Your task to perform on an android device: choose inbox layout in the gmail app Image 0: 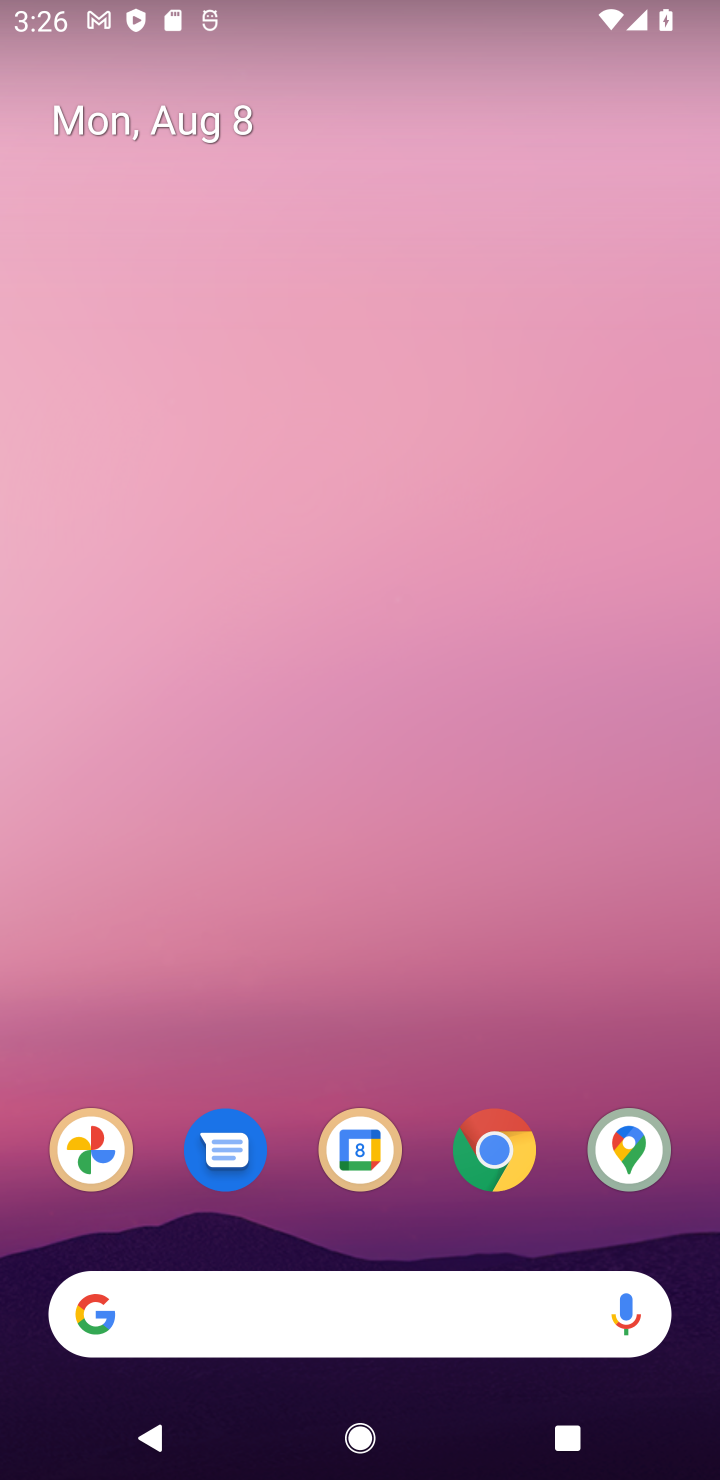
Step 0: click (431, 1237)
Your task to perform on an android device: choose inbox layout in the gmail app Image 1: 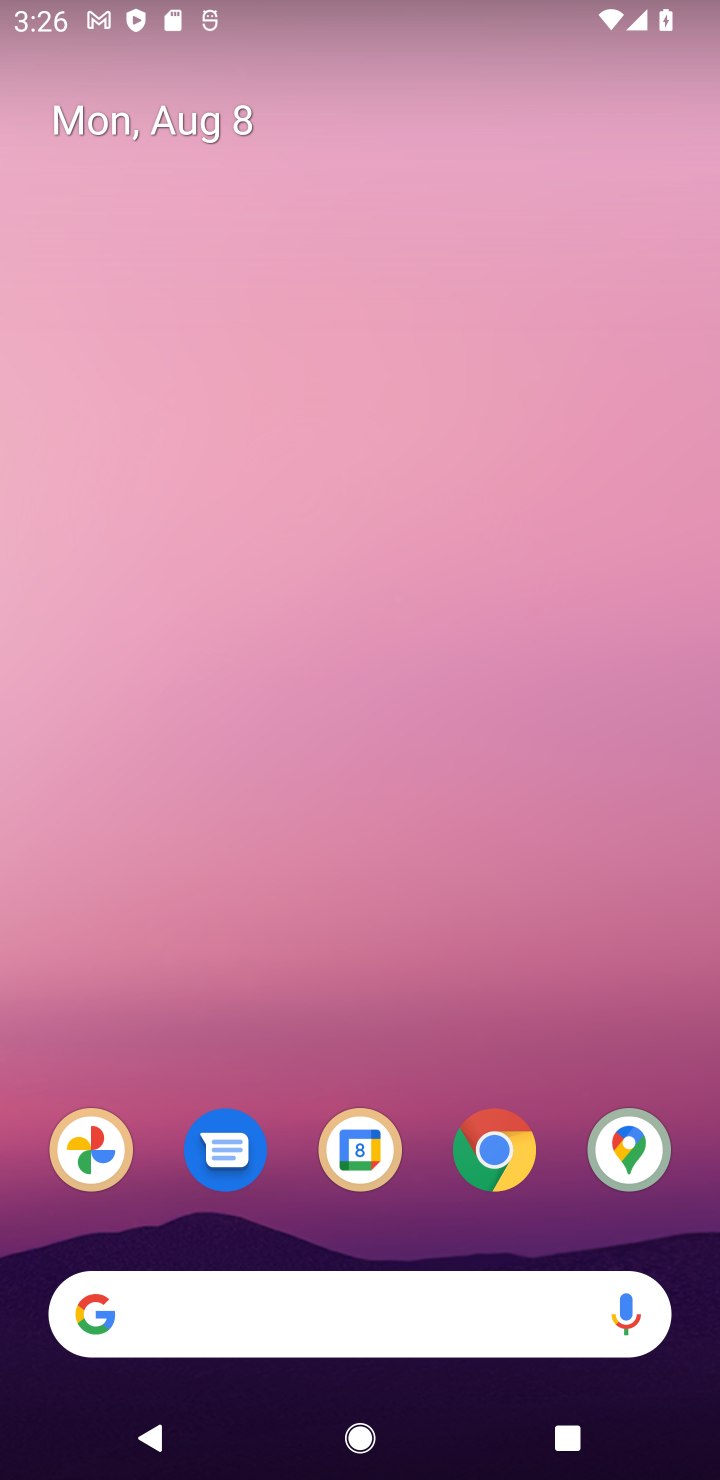
Step 1: drag from (431, 1237) to (373, 112)
Your task to perform on an android device: choose inbox layout in the gmail app Image 2: 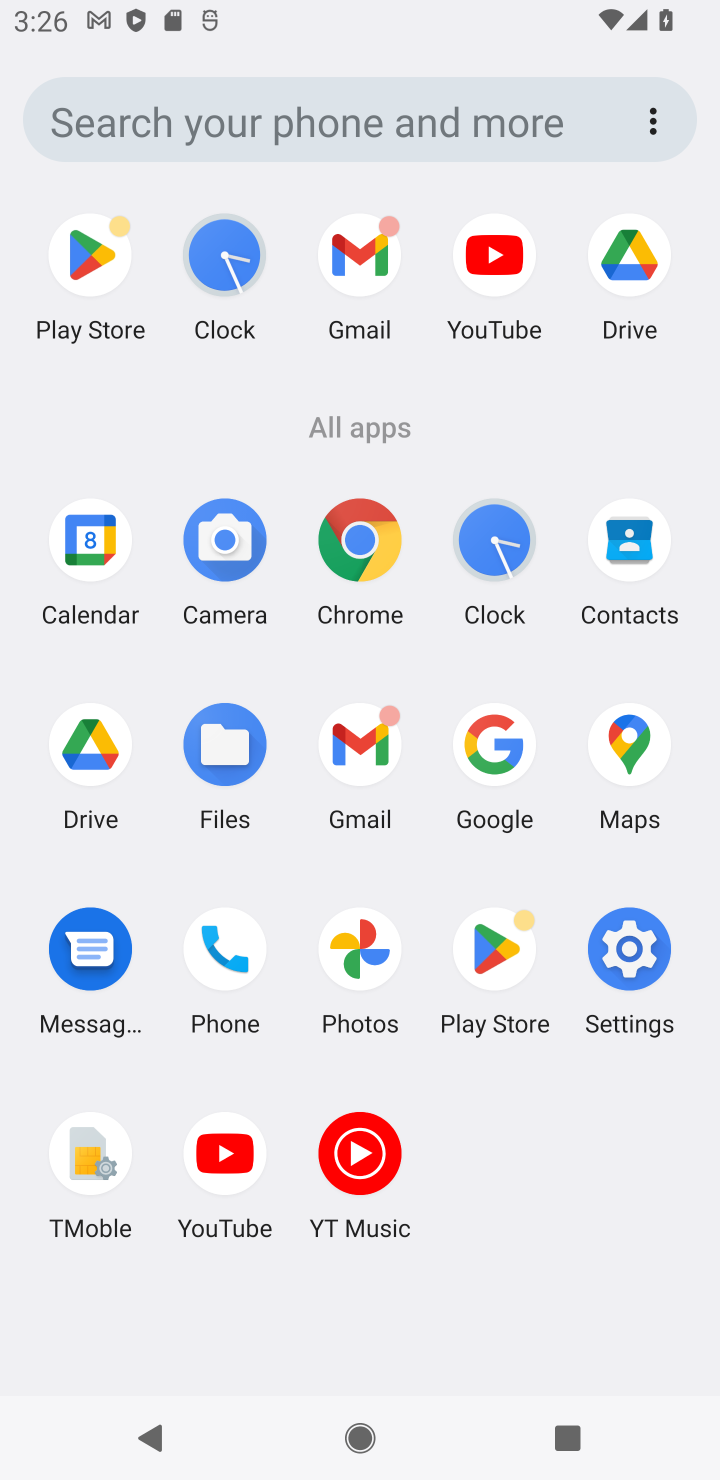
Step 2: click (401, 323)
Your task to perform on an android device: choose inbox layout in the gmail app Image 3: 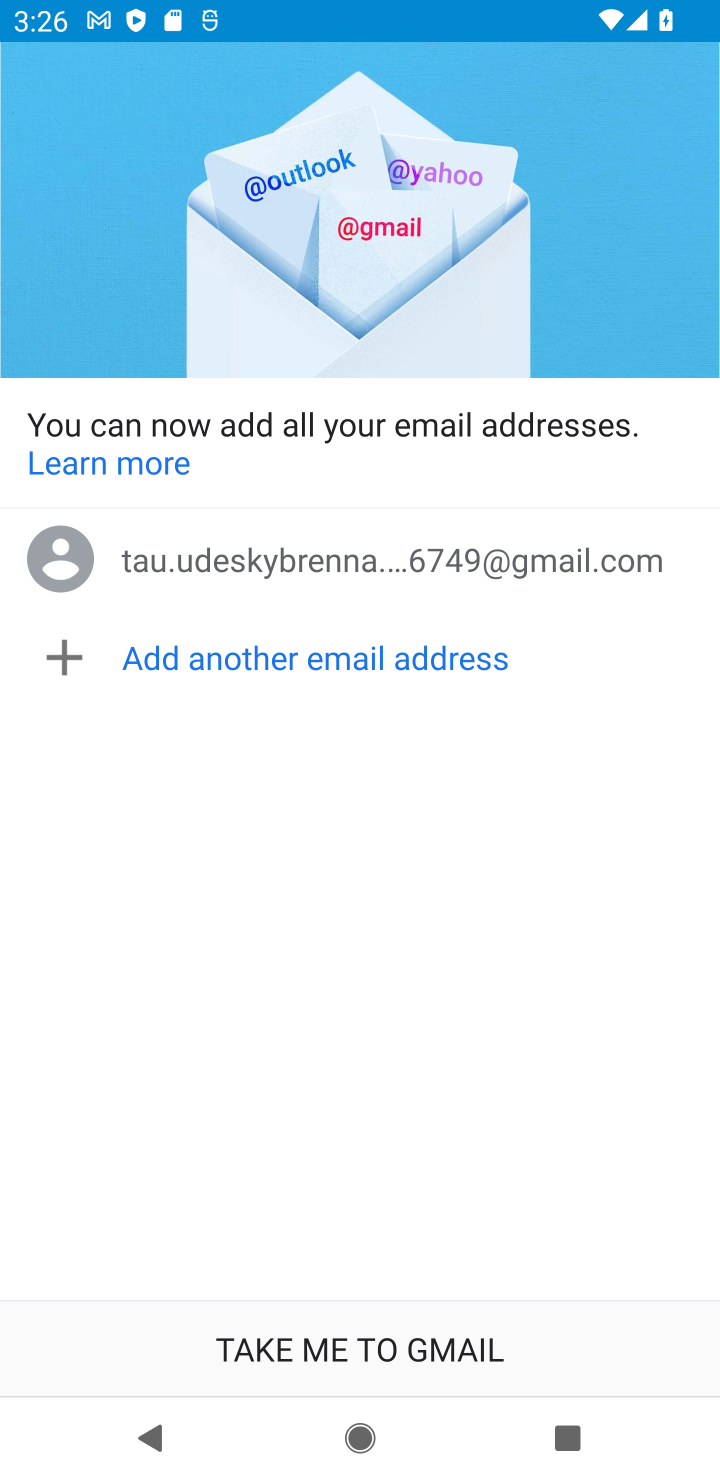
Step 3: task complete